Your task to perform on an android device: Open maps Image 0: 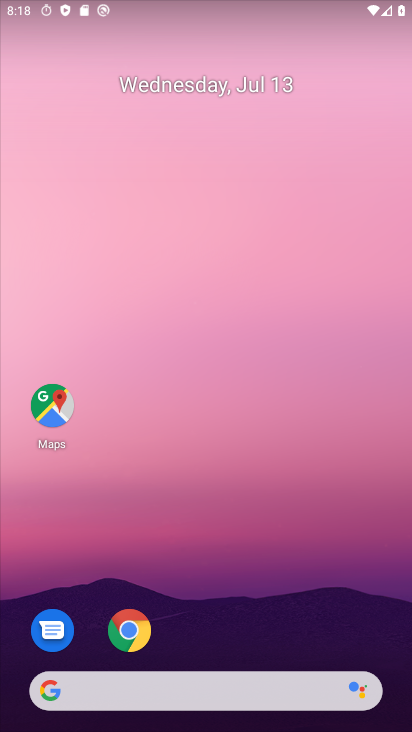
Step 0: drag from (332, 313) to (398, 132)
Your task to perform on an android device: Open maps Image 1: 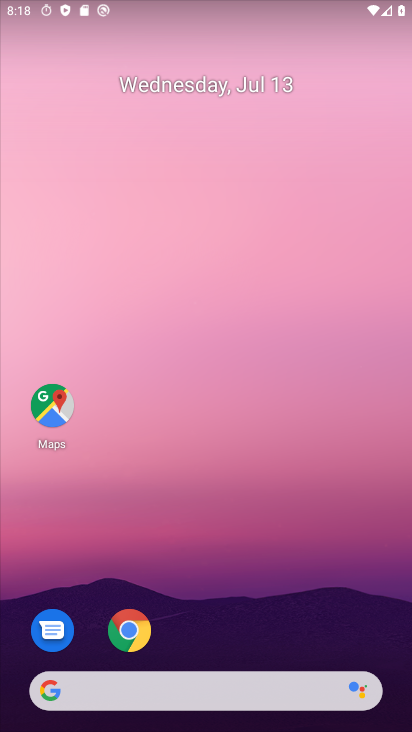
Step 1: drag from (193, 639) to (267, 92)
Your task to perform on an android device: Open maps Image 2: 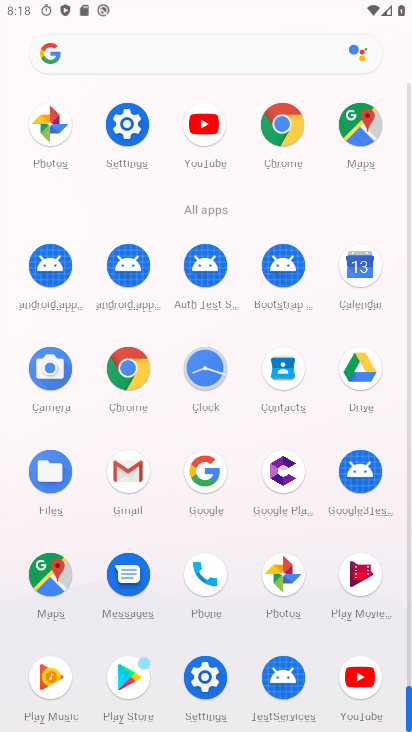
Step 2: click (42, 581)
Your task to perform on an android device: Open maps Image 3: 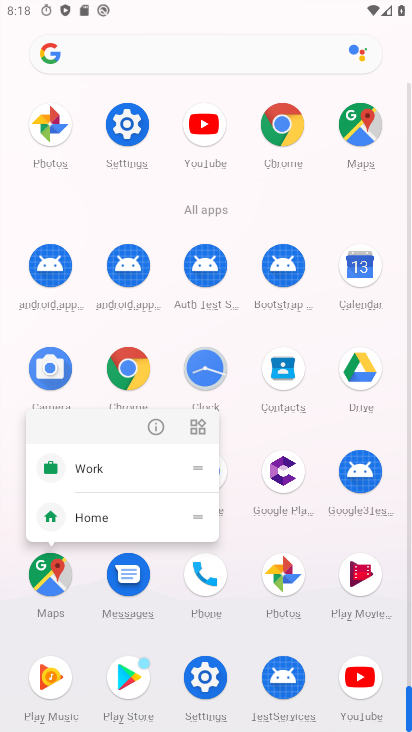
Step 3: click (164, 432)
Your task to perform on an android device: Open maps Image 4: 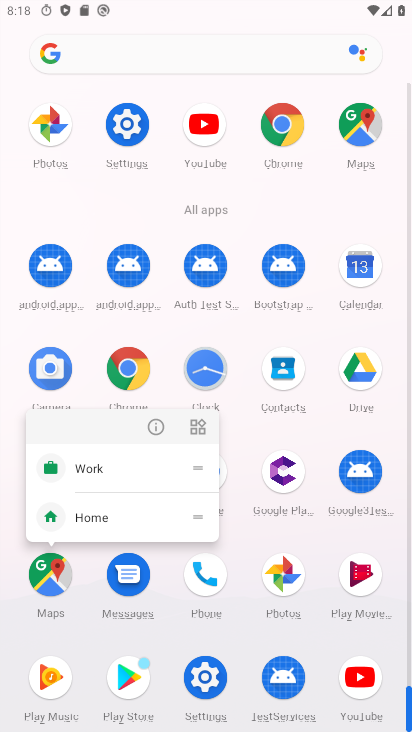
Step 4: click (151, 422)
Your task to perform on an android device: Open maps Image 5: 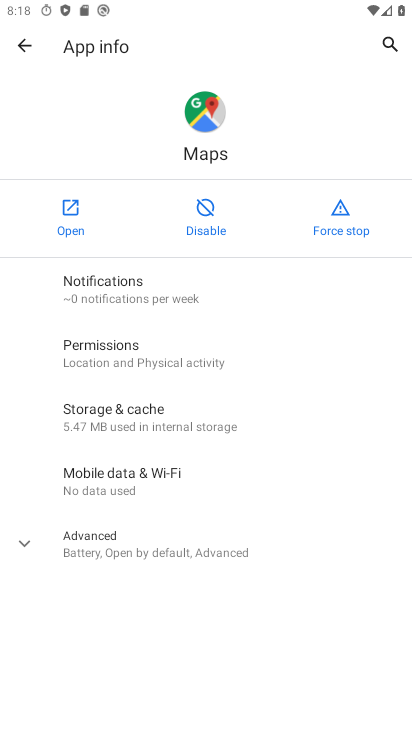
Step 5: click (69, 217)
Your task to perform on an android device: Open maps Image 6: 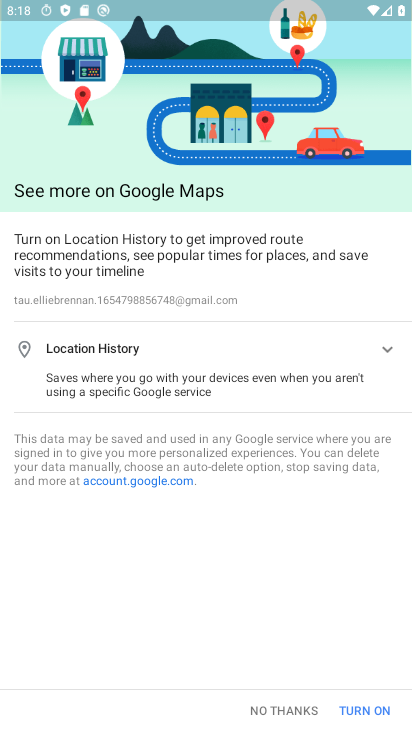
Step 6: click (257, 302)
Your task to perform on an android device: Open maps Image 7: 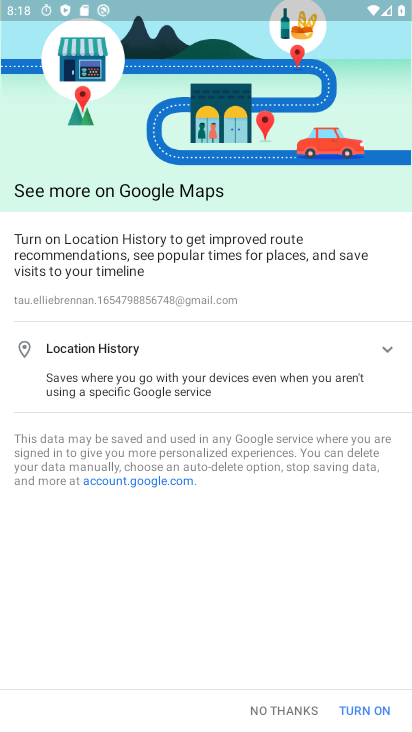
Step 7: click (265, 713)
Your task to perform on an android device: Open maps Image 8: 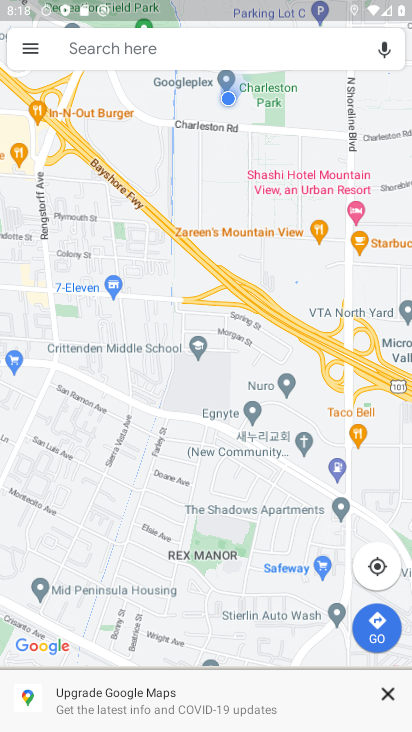
Step 8: task complete